Your task to perform on an android device: Open Yahoo.com Image 0: 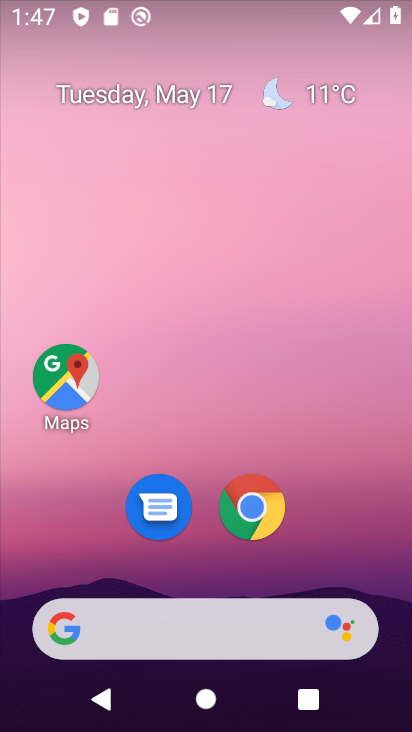
Step 0: click (252, 505)
Your task to perform on an android device: Open Yahoo.com Image 1: 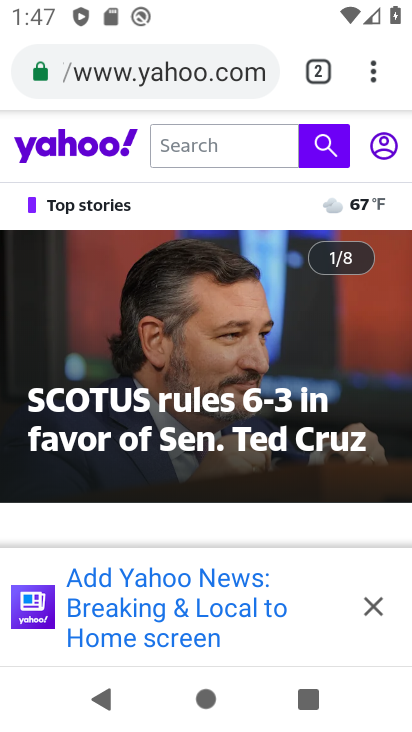
Step 1: task complete